Your task to perform on an android device: make emails show in primary in the gmail app Image 0: 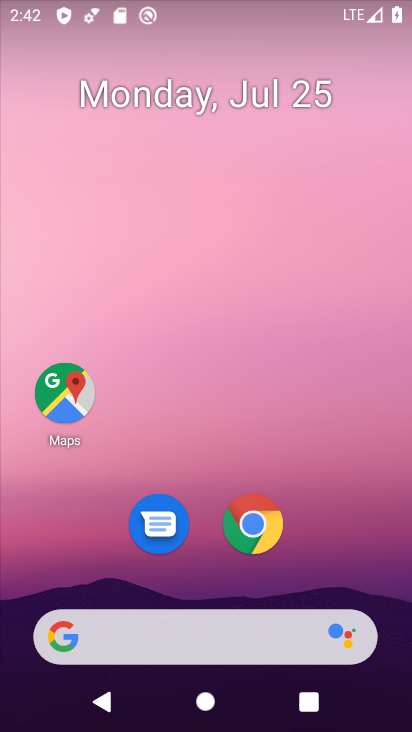
Step 0: drag from (342, 549) to (352, 33)
Your task to perform on an android device: make emails show in primary in the gmail app Image 1: 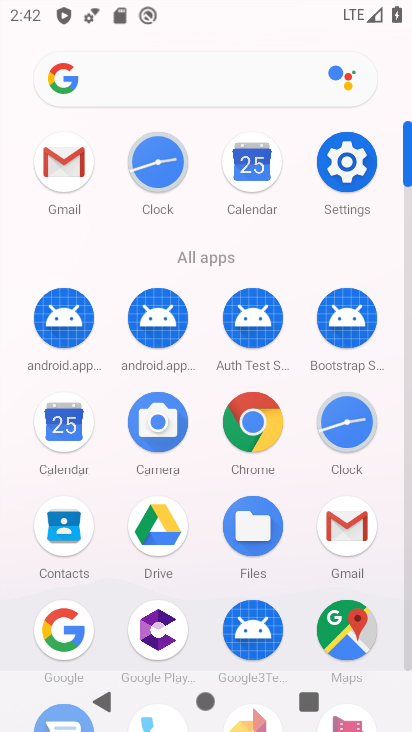
Step 1: click (67, 174)
Your task to perform on an android device: make emails show in primary in the gmail app Image 2: 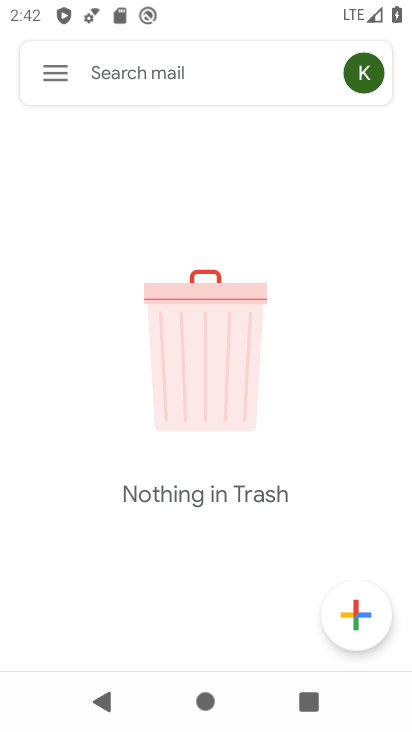
Step 2: click (56, 74)
Your task to perform on an android device: make emails show in primary in the gmail app Image 3: 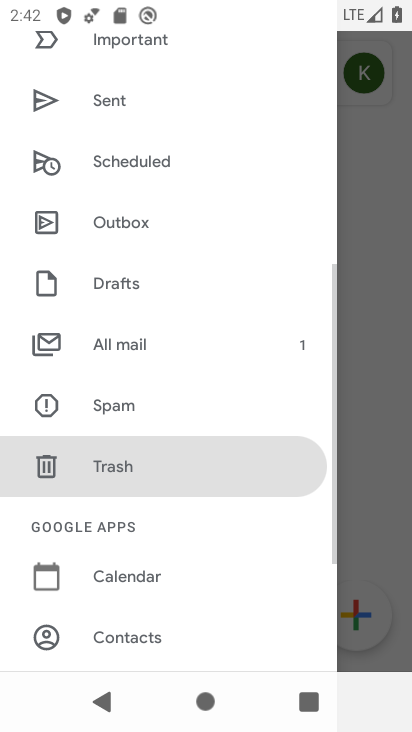
Step 3: drag from (149, 557) to (189, 221)
Your task to perform on an android device: make emails show in primary in the gmail app Image 4: 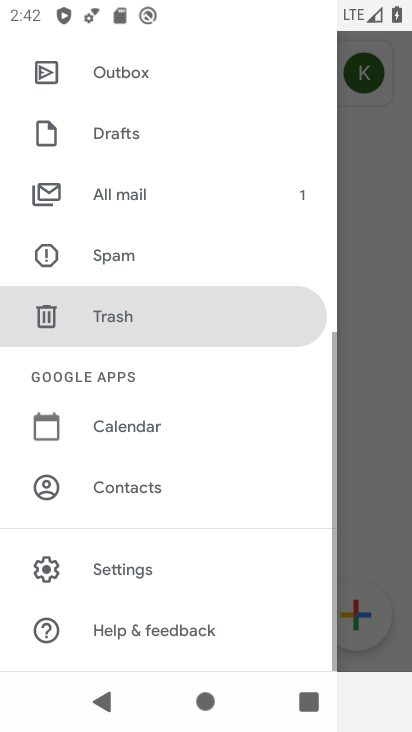
Step 4: click (130, 565)
Your task to perform on an android device: make emails show in primary in the gmail app Image 5: 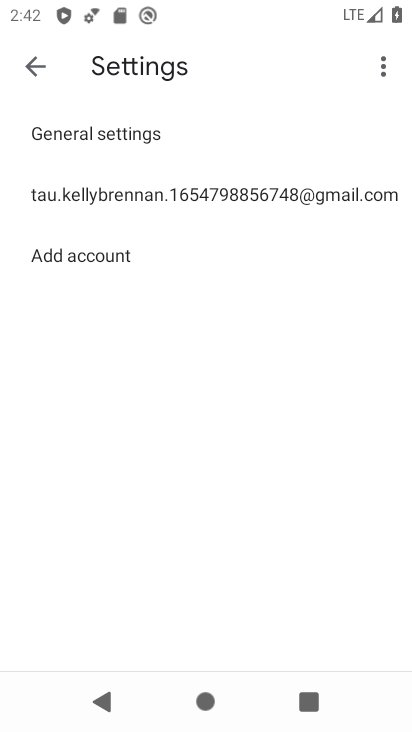
Step 5: click (114, 193)
Your task to perform on an android device: make emails show in primary in the gmail app Image 6: 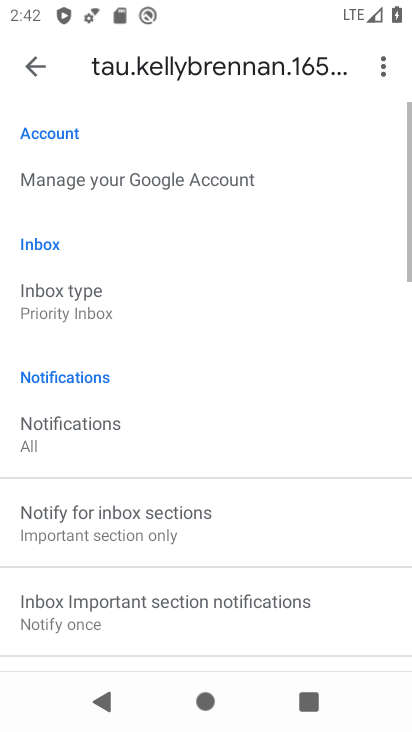
Step 6: click (83, 298)
Your task to perform on an android device: make emails show in primary in the gmail app Image 7: 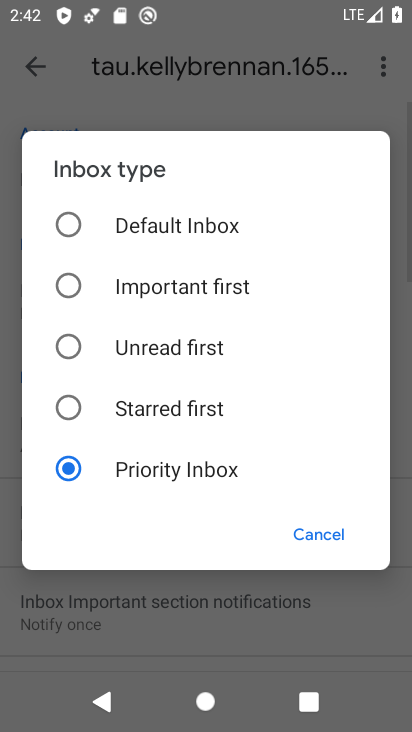
Step 7: click (68, 223)
Your task to perform on an android device: make emails show in primary in the gmail app Image 8: 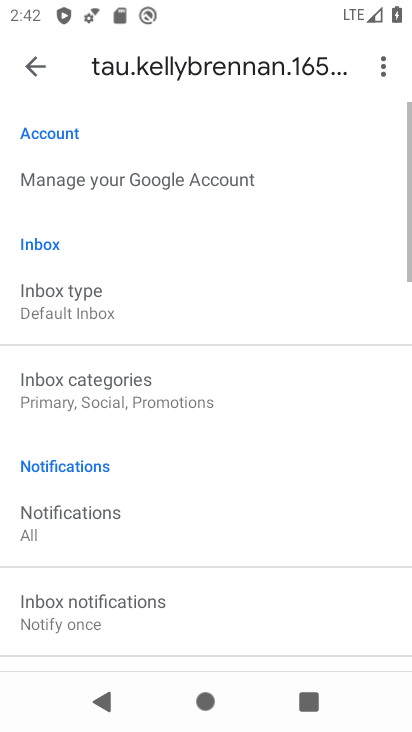
Step 8: click (79, 376)
Your task to perform on an android device: make emails show in primary in the gmail app Image 9: 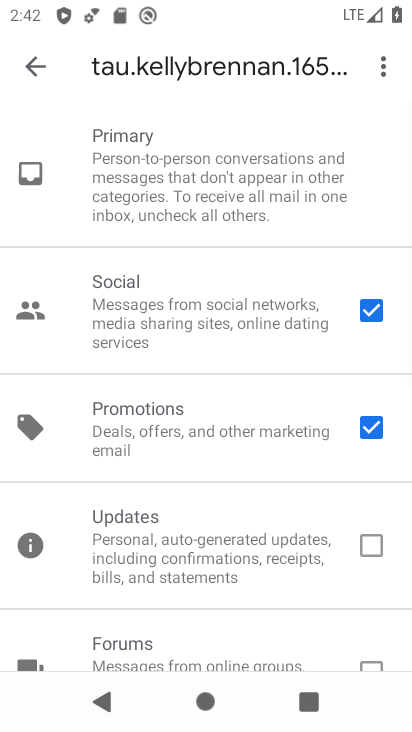
Step 9: click (358, 425)
Your task to perform on an android device: make emails show in primary in the gmail app Image 10: 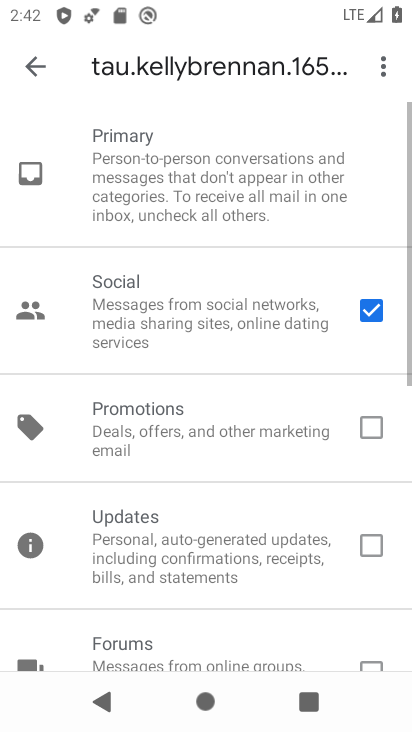
Step 10: click (374, 303)
Your task to perform on an android device: make emails show in primary in the gmail app Image 11: 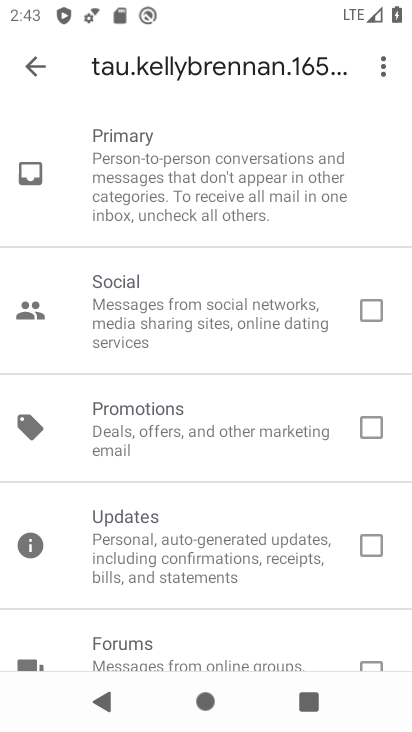
Step 11: task complete